Your task to perform on an android device: Open calendar and show me the third week of next month Image 0: 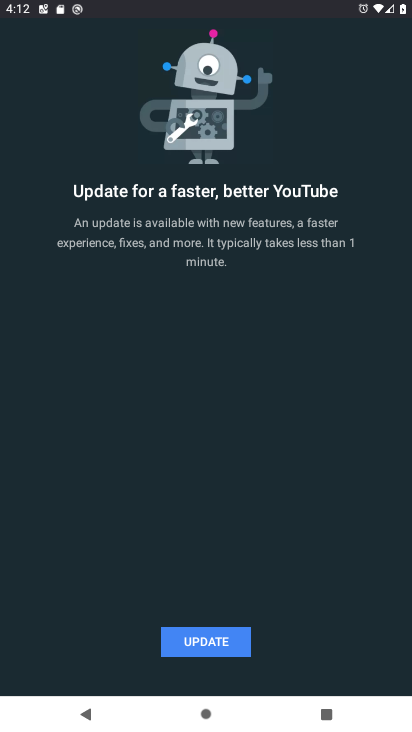
Step 0: press home button
Your task to perform on an android device: Open calendar and show me the third week of next month Image 1: 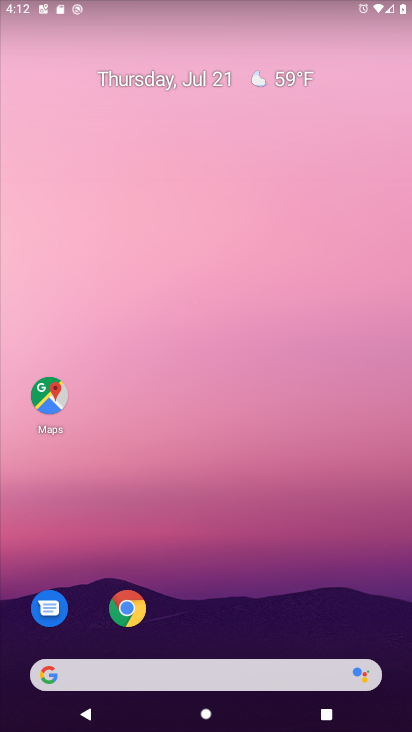
Step 1: drag from (247, 622) to (234, 3)
Your task to perform on an android device: Open calendar and show me the third week of next month Image 2: 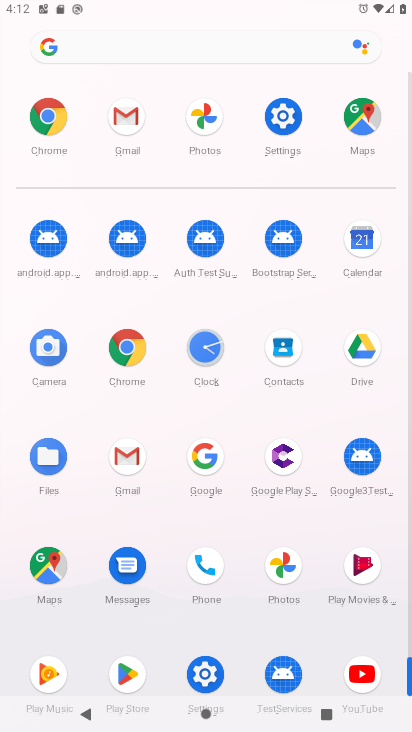
Step 2: click (357, 237)
Your task to perform on an android device: Open calendar and show me the third week of next month Image 3: 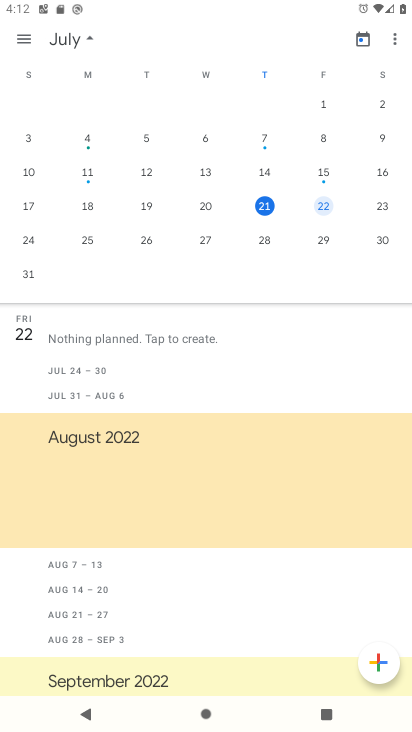
Step 3: drag from (368, 182) to (4, 264)
Your task to perform on an android device: Open calendar and show me the third week of next month Image 4: 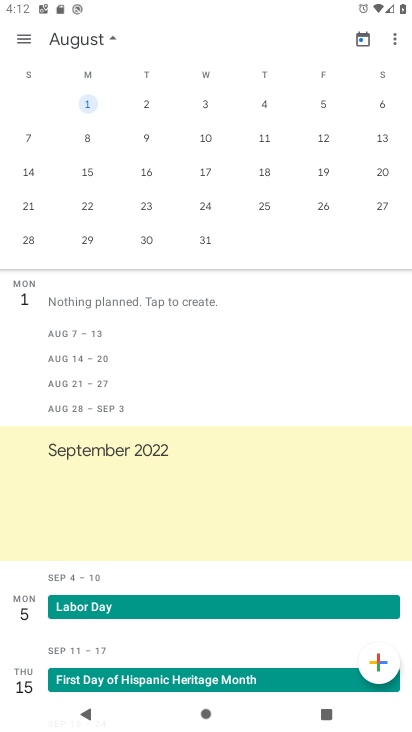
Step 4: click (204, 169)
Your task to perform on an android device: Open calendar and show me the third week of next month Image 5: 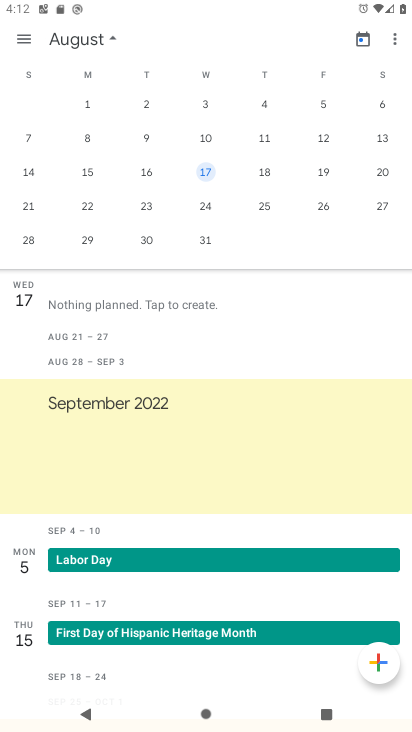
Step 5: click (23, 38)
Your task to perform on an android device: Open calendar and show me the third week of next month Image 6: 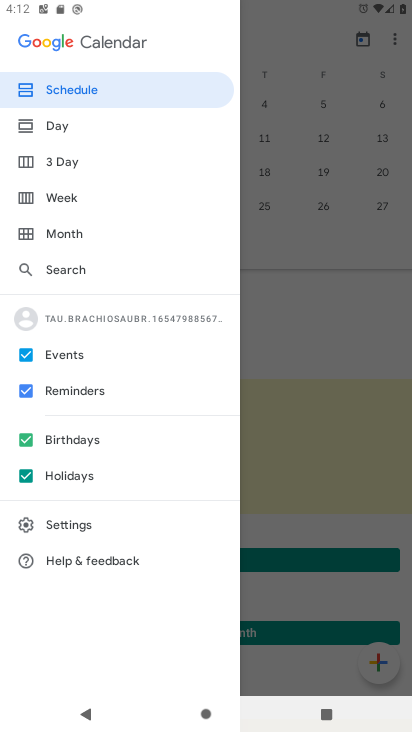
Step 6: click (62, 196)
Your task to perform on an android device: Open calendar and show me the third week of next month Image 7: 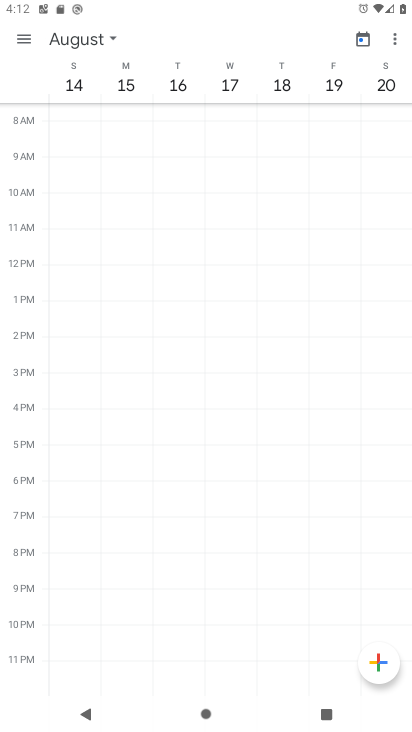
Step 7: task complete